Your task to perform on an android device: turn off notifications settings in the gmail app Image 0: 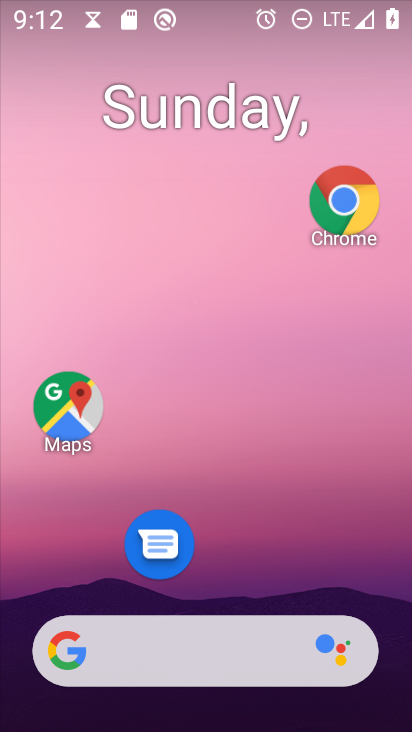
Step 0: drag from (254, 564) to (314, 114)
Your task to perform on an android device: turn off notifications settings in the gmail app Image 1: 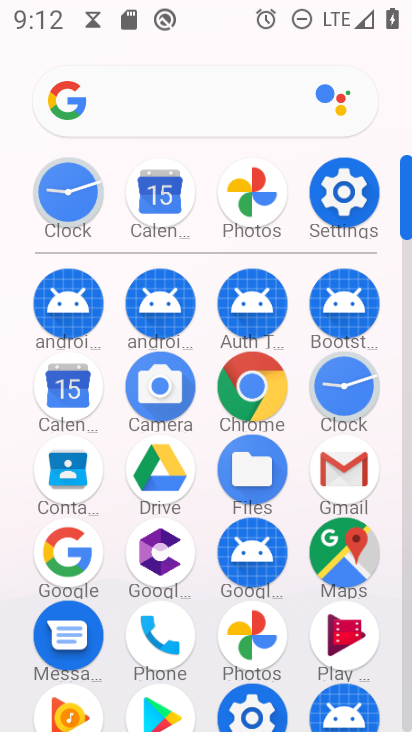
Step 1: click (352, 450)
Your task to perform on an android device: turn off notifications settings in the gmail app Image 2: 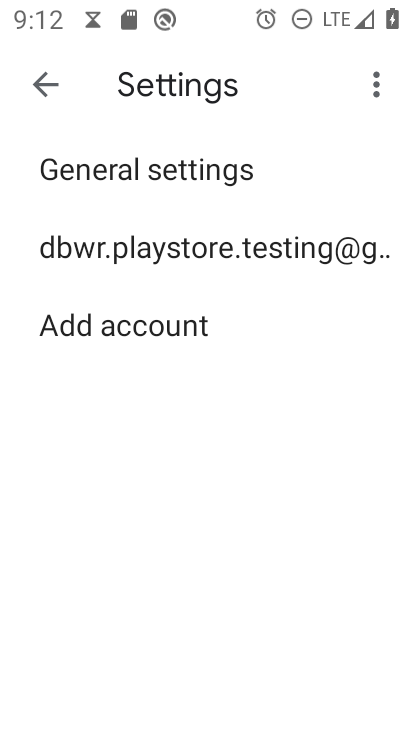
Step 2: click (154, 248)
Your task to perform on an android device: turn off notifications settings in the gmail app Image 3: 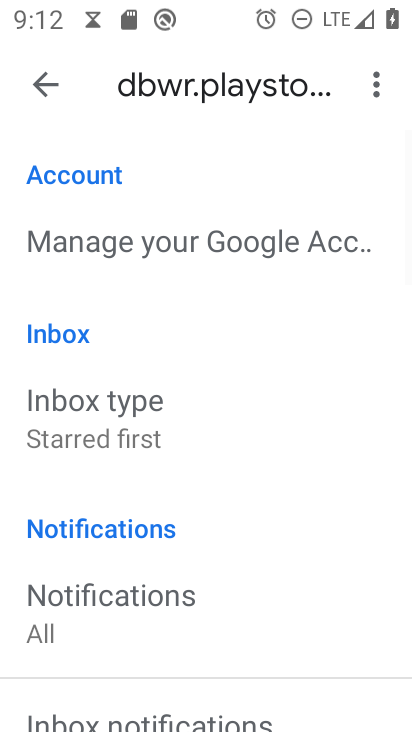
Step 3: drag from (174, 487) to (262, 118)
Your task to perform on an android device: turn off notifications settings in the gmail app Image 4: 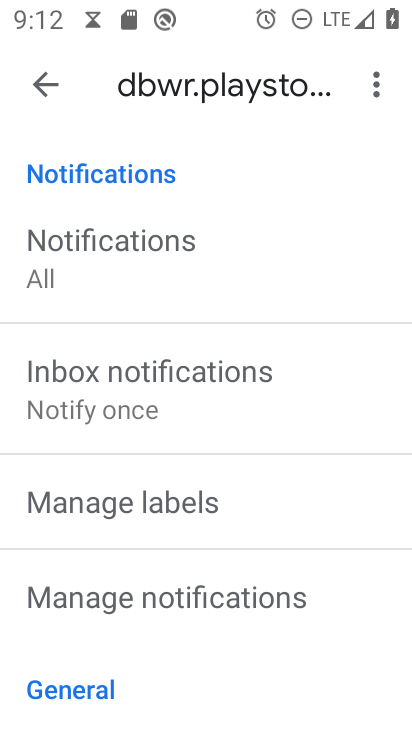
Step 4: click (195, 590)
Your task to perform on an android device: turn off notifications settings in the gmail app Image 5: 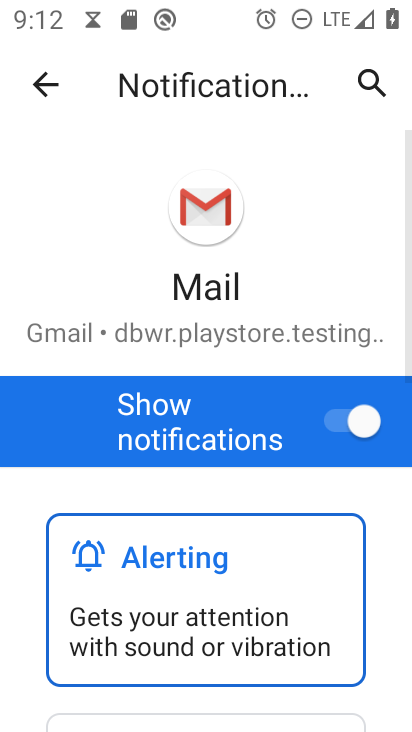
Step 5: click (352, 405)
Your task to perform on an android device: turn off notifications settings in the gmail app Image 6: 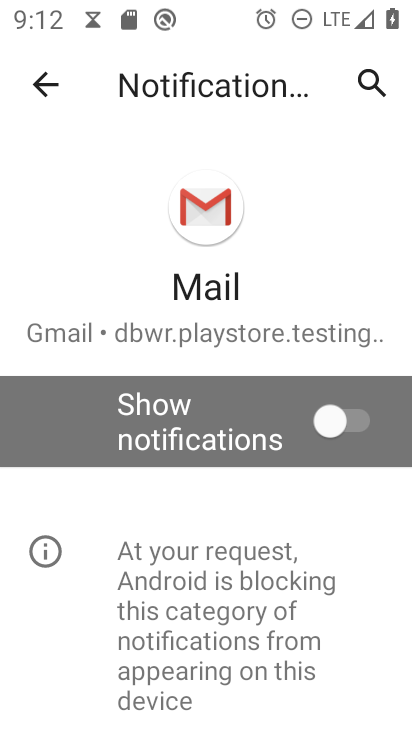
Step 6: task complete